Your task to perform on an android device: Go to sound settings Image 0: 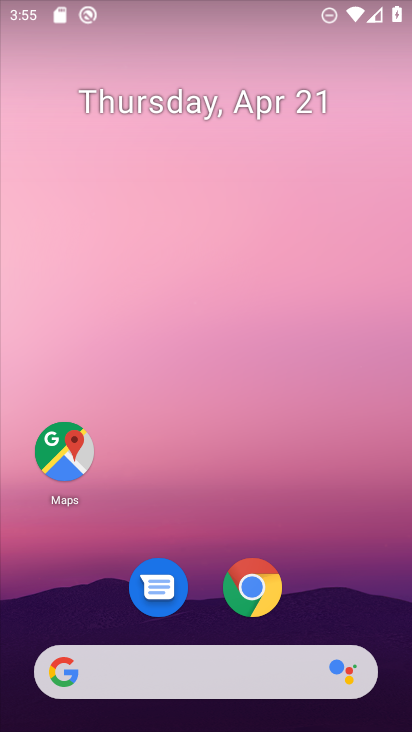
Step 0: drag from (368, 605) to (383, 278)
Your task to perform on an android device: Go to sound settings Image 1: 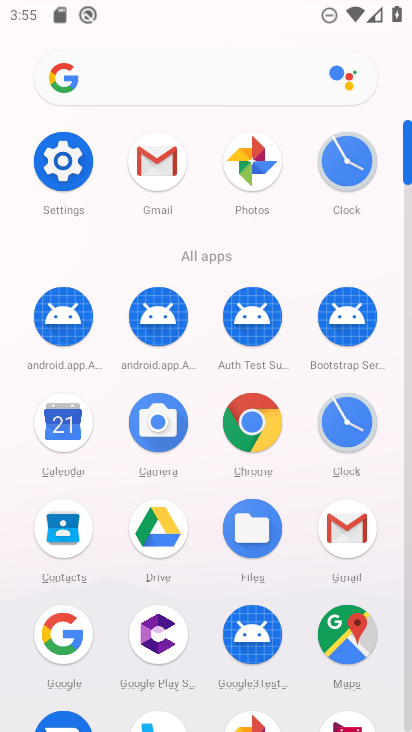
Step 1: click (59, 168)
Your task to perform on an android device: Go to sound settings Image 2: 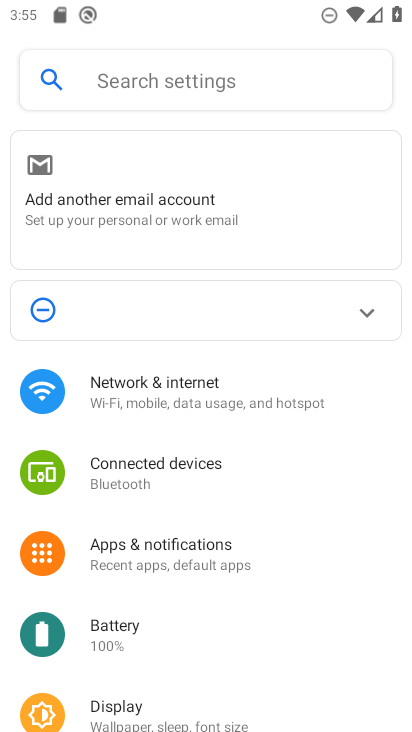
Step 2: drag from (321, 697) to (344, 298)
Your task to perform on an android device: Go to sound settings Image 3: 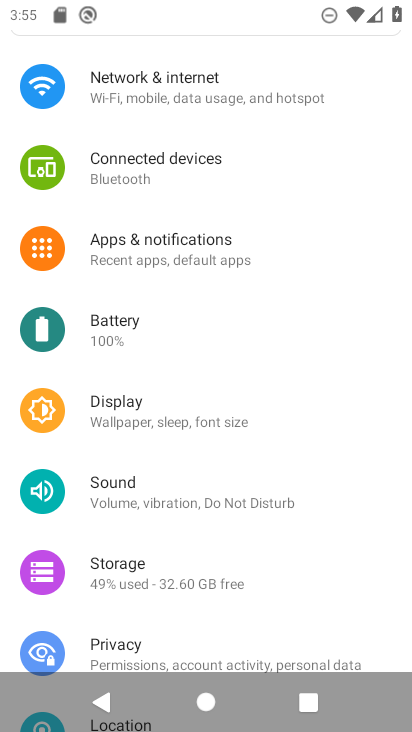
Step 3: click (105, 490)
Your task to perform on an android device: Go to sound settings Image 4: 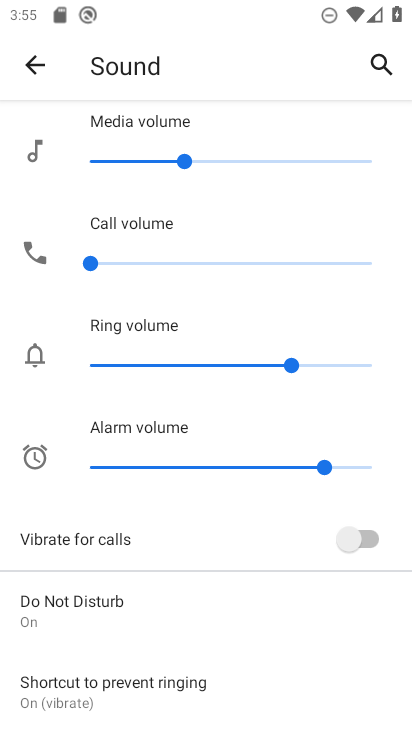
Step 4: task complete